Your task to perform on an android device: Search for seafood restaurants on Google Maps Image 0: 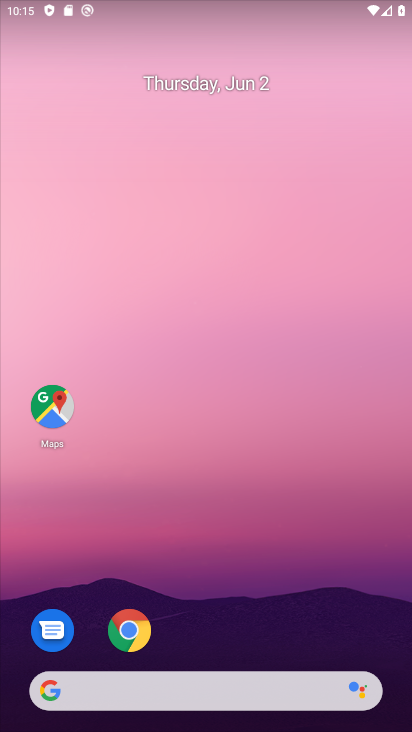
Step 0: drag from (259, 487) to (193, 109)
Your task to perform on an android device: Search for seafood restaurants on Google Maps Image 1: 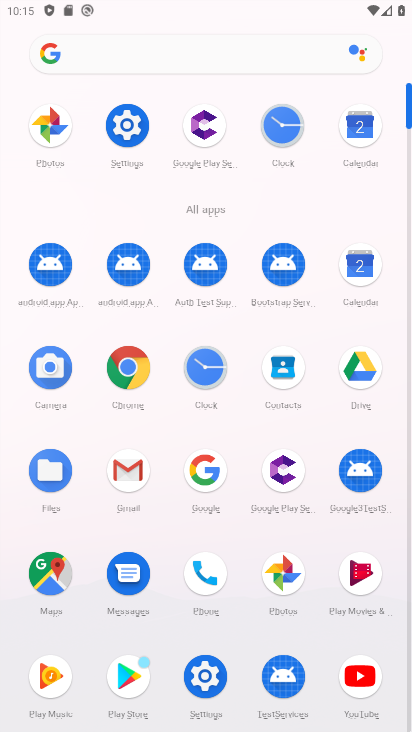
Step 1: click (203, 479)
Your task to perform on an android device: Search for seafood restaurants on Google Maps Image 2: 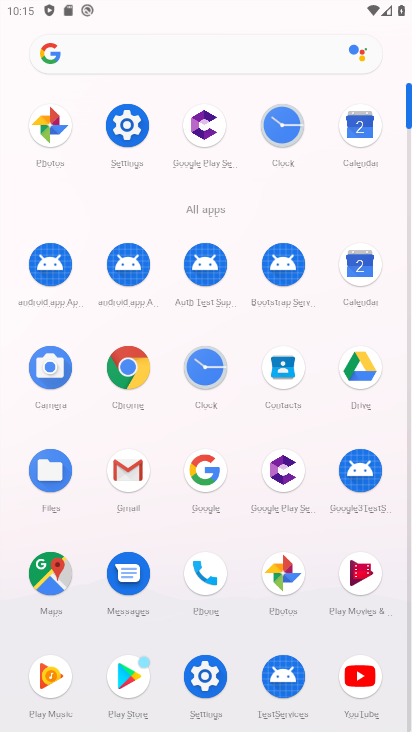
Step 2: click (203, 479)
Your task to perform on an android device: Search for seafood restaurants on Google Maps Image 3: 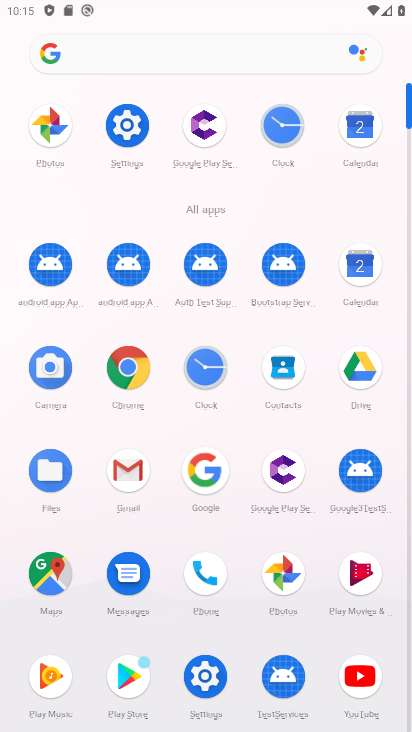
Step 3: click (203, 479)
Your task to perform on an android device: Search for seafood restaurants on Google Maps Image 4: 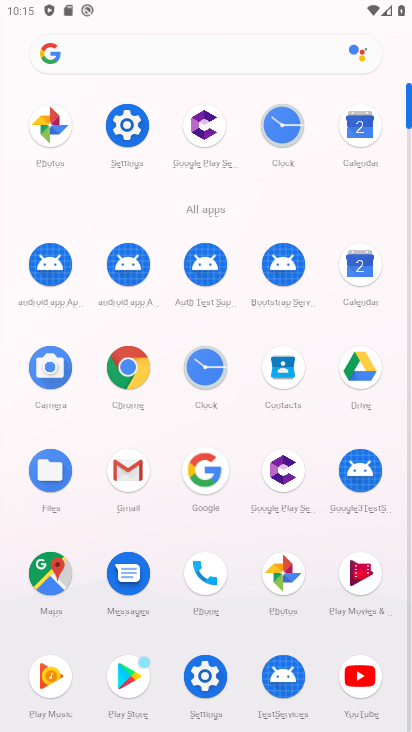
Step 4: click (203, 479)
Your task to perform on an android device: Search for seafood restaurants on Google Maps Image 5: 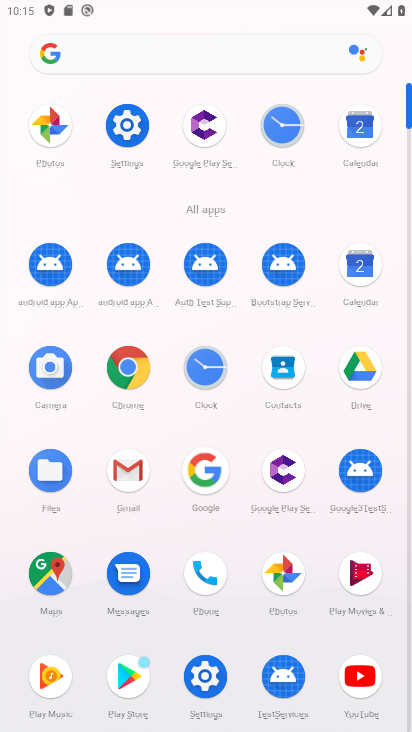
Step 5: click (203, 479)
Your task to perform on an android device: Search for seafood restaurants on Google Maps Image 6: 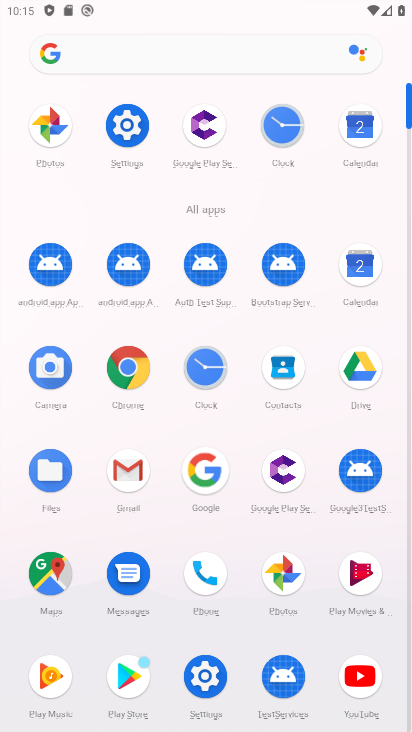
Step 6: click (203, 479)
Your task to perform on an android device: Search for seafood restaurants on Google Maps Image 7: 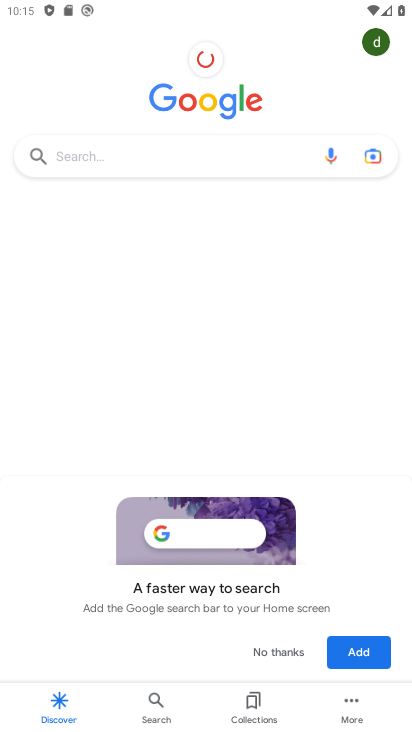
Step 7: press back button
Your task to perform on an android device: Search for seafood restaurants on Google Maps Image 8: 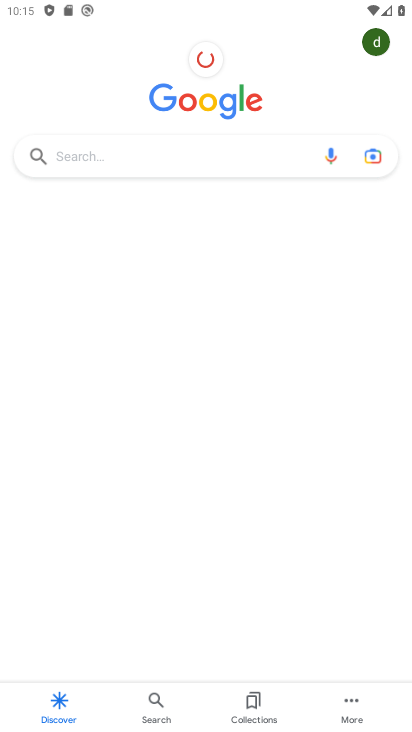
Step 8: press home button
Your task to perform on an android device: Search for seafood restaurants on Google Maps Image 9: 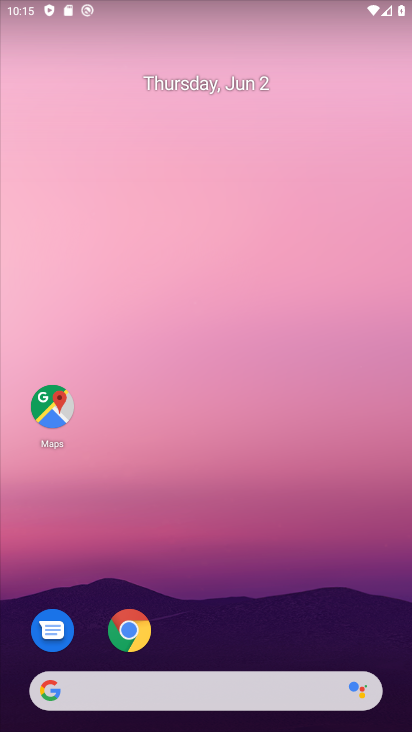
Step 9: drag from (257, 704) to (142, 221)
Your task to perform on an android device: Search for seafood restaurants on Google Maps Image 10: 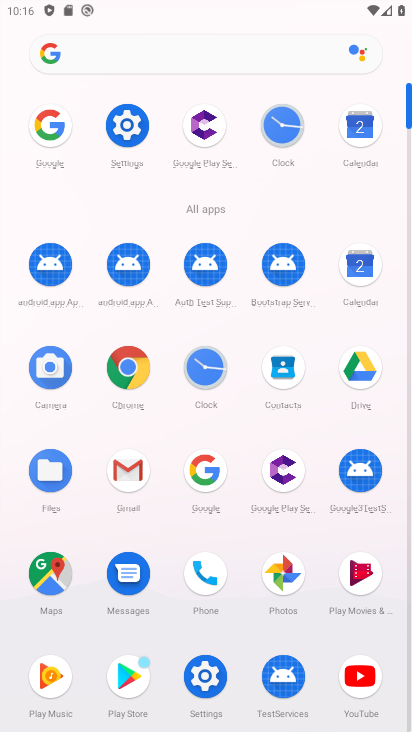
Step 10: click (43, 566)
Your task to perform on an android device: Search for seafood restaurants on Google Maps Image 11: 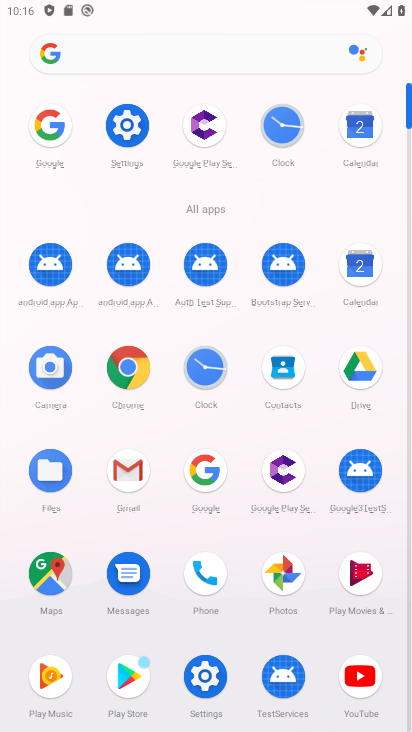
Step 11: click (43, 566)
Your task to perform on an android device: Search for seafood restaurants on Google Maps Image 12: 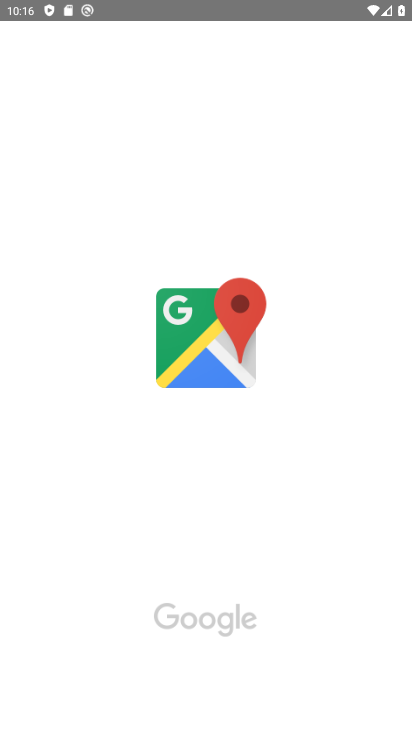
Step 12: click (52, 583)
Your task to perform on an android device: Search for seafood restaurants on Google Maps Image 13: 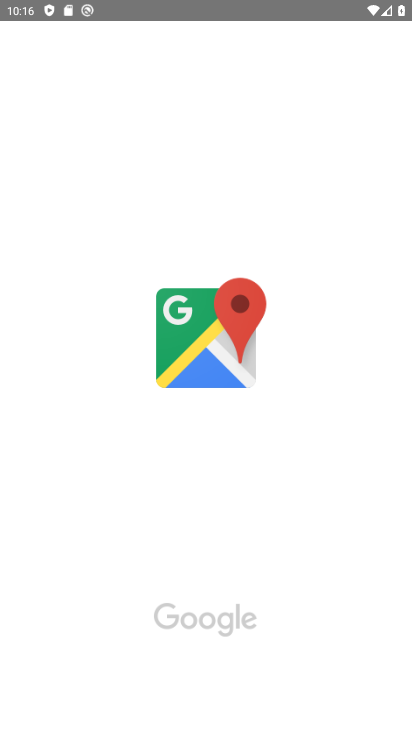
Step 13: click (201, 330)
Your task to perform on an android device: Search for seafood restaurants on Google Maps Image 14: 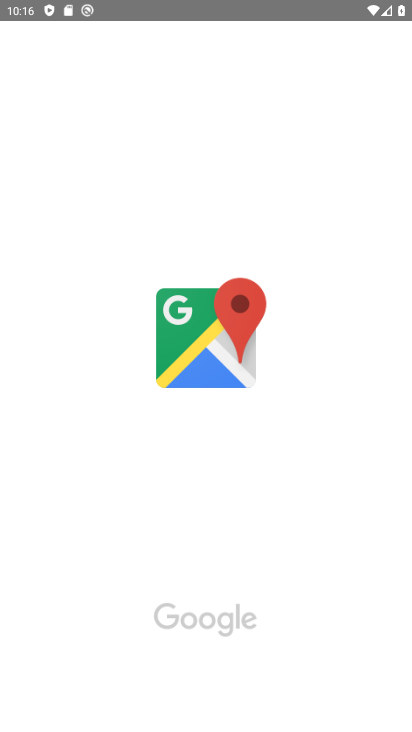
Step 14: click (200, 330)
Your task to perform on an android device: Search for seafood restaurants on Google Maps Image 15: 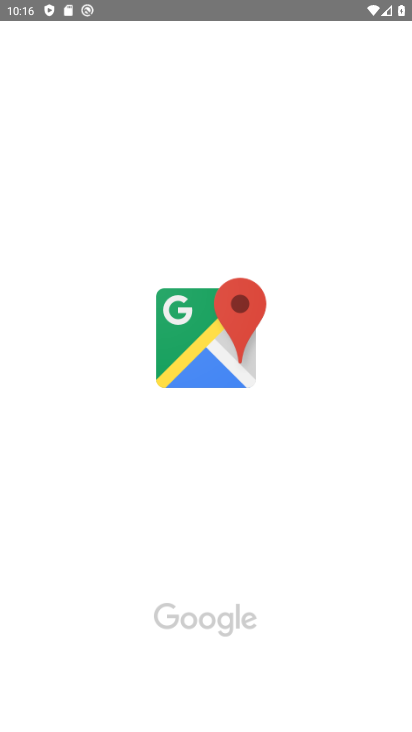
Step 15: click (200, 330)
Your task to perform on an android device: Search for seafood restaurants on Google Maps Image 16: 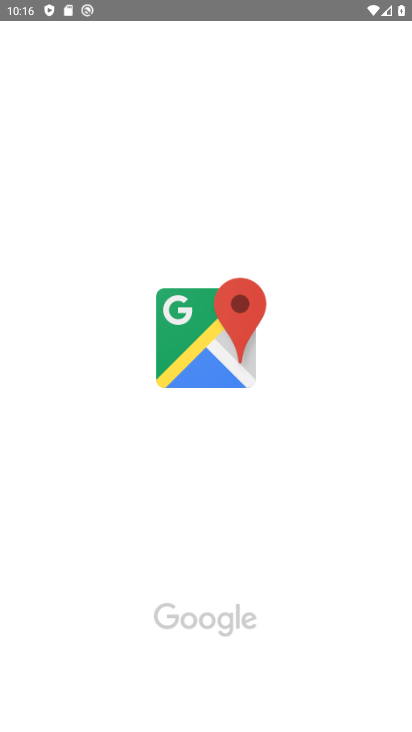
Step 16: click (200, 330)
Your task to perform on an android device: Search for seafood restaurants on Google Maps Image 17: 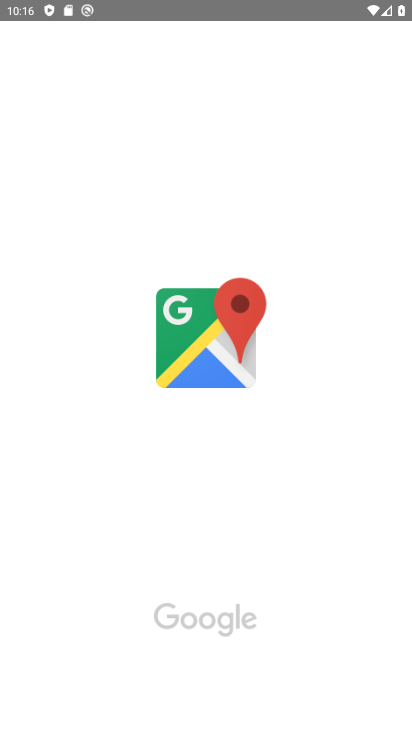
Step 17: click (203, 331)
Your task to perform on an android device: Search for seafood restaurants on Google Maps Image 18: 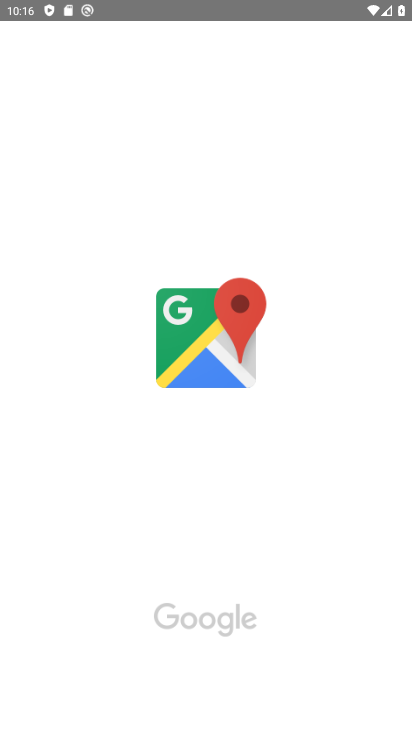
Step 18: click (203, 331)
Your task to perform on an android device: Search for seafood restaurants on Google Maps Image 19: 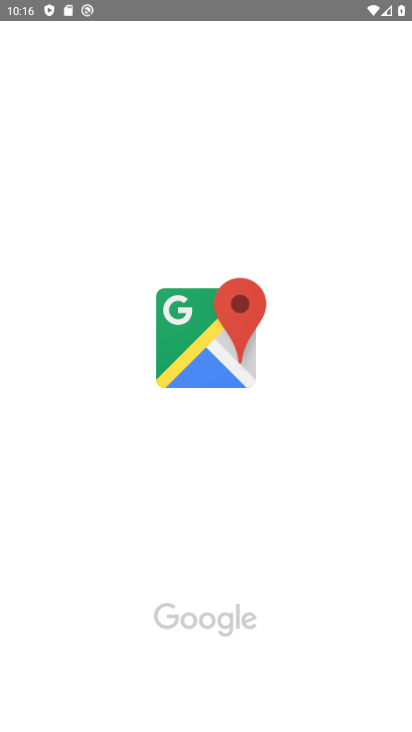
Step 19: click (203, 331)
Your task to perform on an android device: Search for seafood restaurants on Google Maps Image 20: 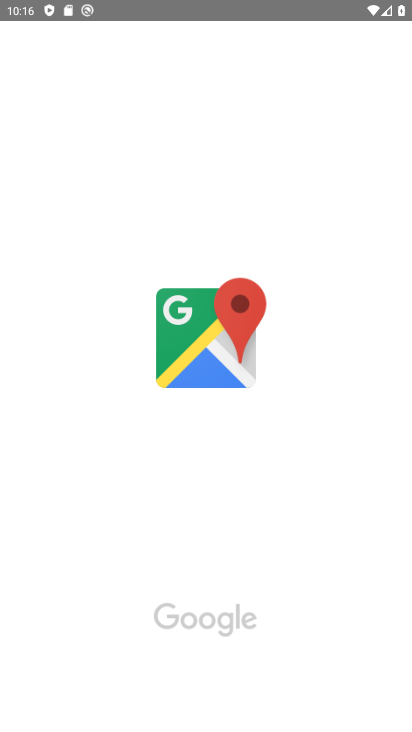
Step 20: click (203, 331)
Your task to perform on an android device: Search for seafood restaurants on Google Maps Image 21: 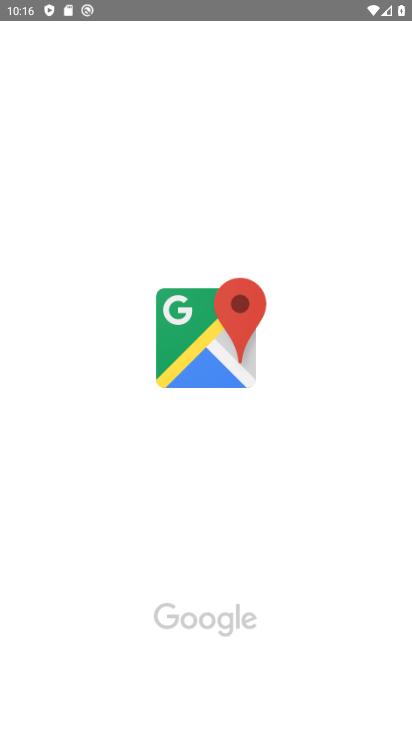
Step 21: click (203, 331)
Your task to perform on an android device: Search for seafood restaurants on Google Maps Image 22: 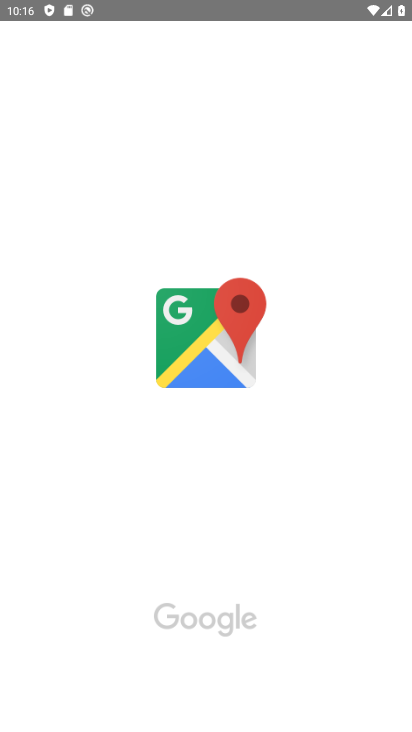
Step 22: click (203, 331)
Your task to perform on an android device: Search for seafood restaurants on Google Maps Image 23: 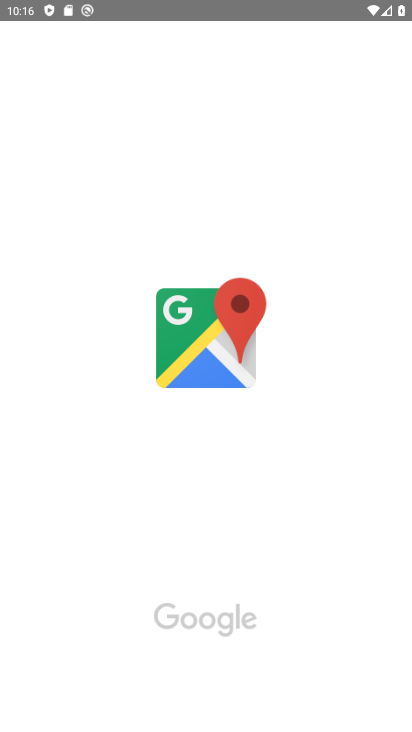
Step 23: click (202, 328)
Your task to perform on an android device: Search for seafood restaurants on Google Maps Image 24: 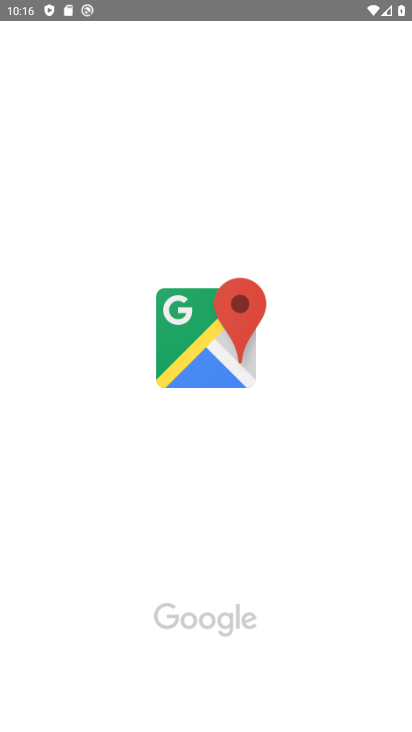
Step 24: click (199, 326)
Your task to perform on an android device: Search for seafood restaurants on Google Maps Image 25: 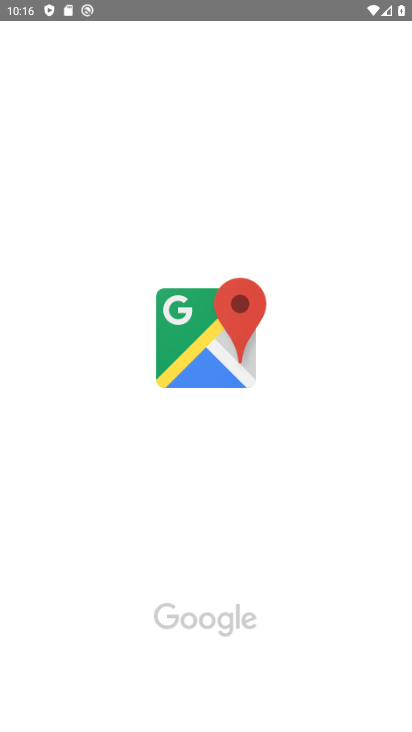
Step 25: click (201, 320)
Your task to perform on an android device: Search for seafood restaurants on Google Maps Image 26: 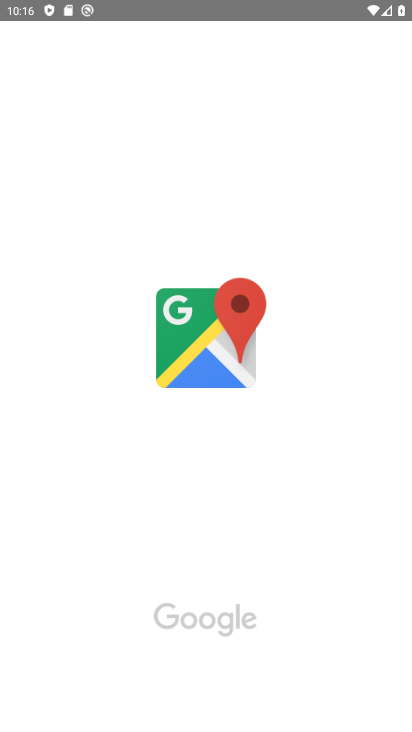
Step 26: click (201, 320)
Your task to perform on an android device: Search for seafood restaurants on Google Maps Image 27: 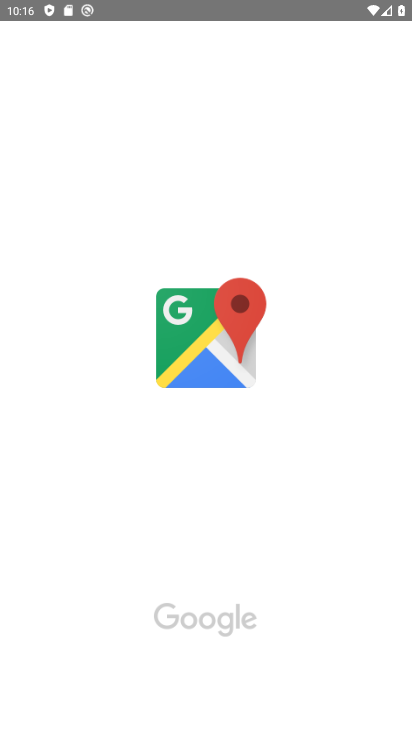
Step 27: task complete